Your task to perform on an android device: Go to eBay Image 0: 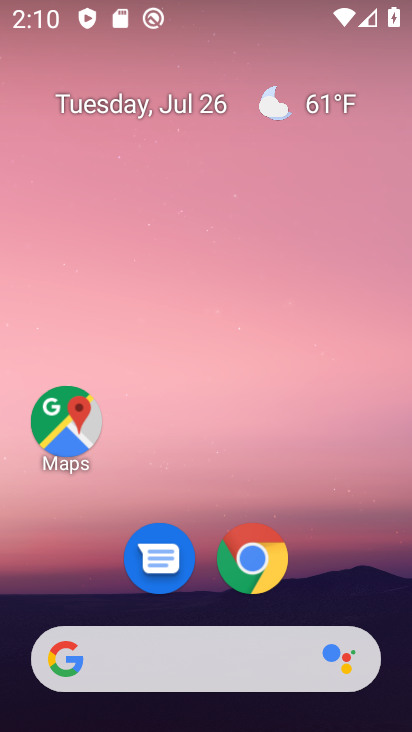
Step 0: click (253, 563)
Your task to perform on an android device: Go to eBay Image 1: 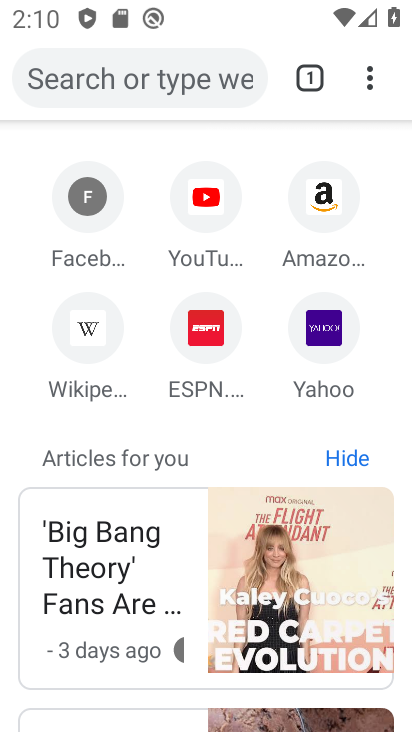
Step 1: click (158, 88)
Your task to perform on an android device: Go to eBay Image 2: 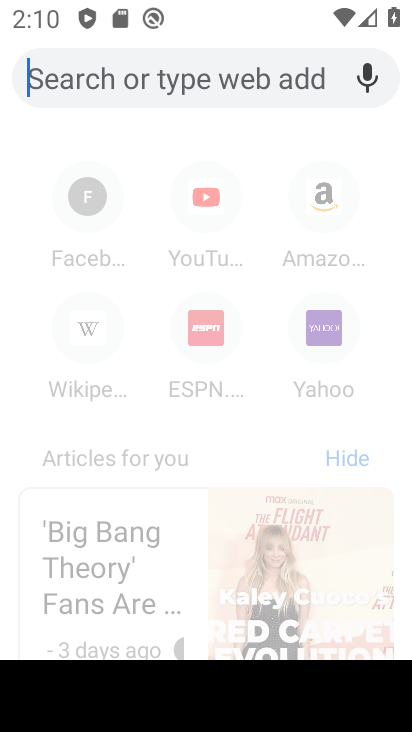
Step 2: type "ebay"
Your task to perform on an android device: Go to eBay Image 3: 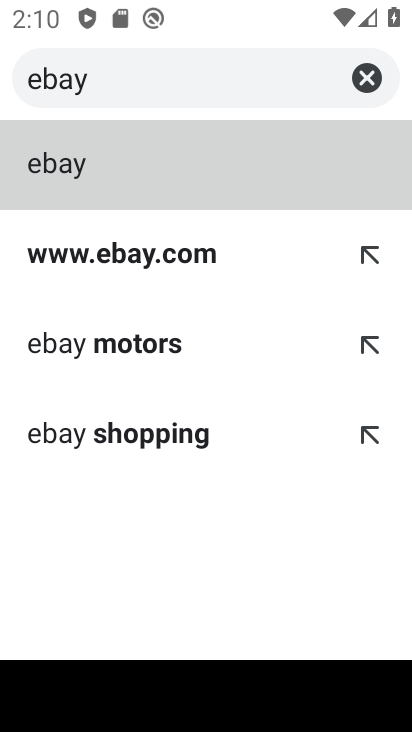
Step 3: click (151, 258)
Your task to perform on an android device: Go to eBay Image 4: 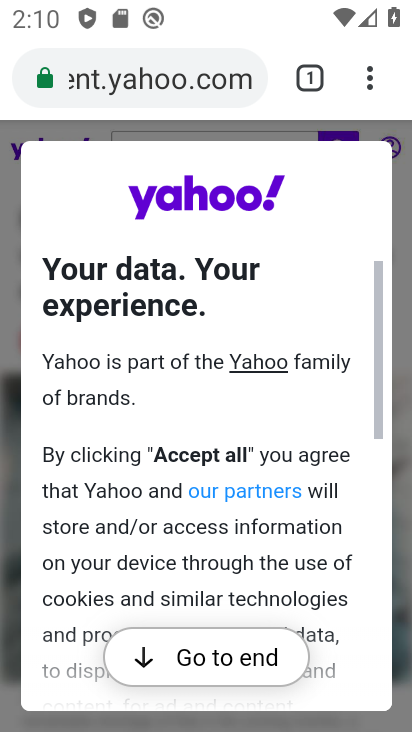
Step 4: drag from (192, 651) to (367, 80)
Your task to perform on an android device: Go to eBay Image 5: 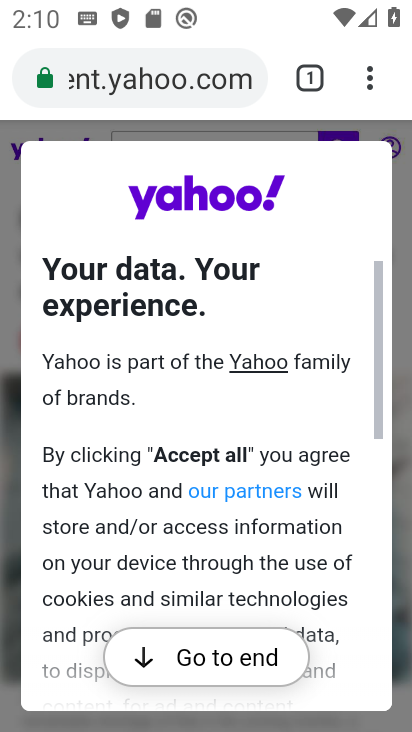
Step 5: click (178, 653)
Your task to perform on an android device: Go to eBay Image 6: 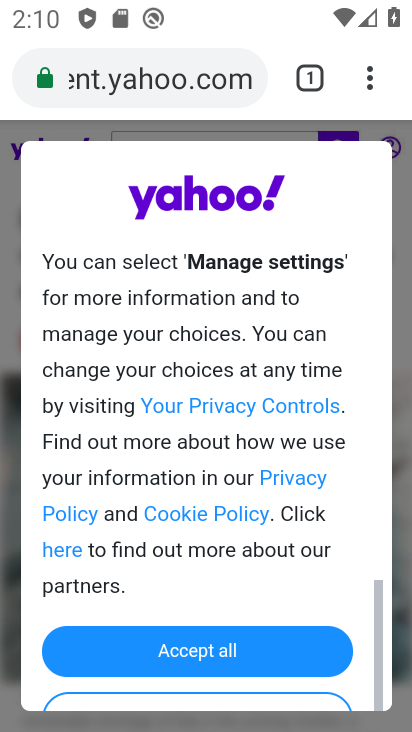
Step 6: drag from (209, 504) to (292, 181)
Your task to perform on an android device: Go to eBay Image 7: 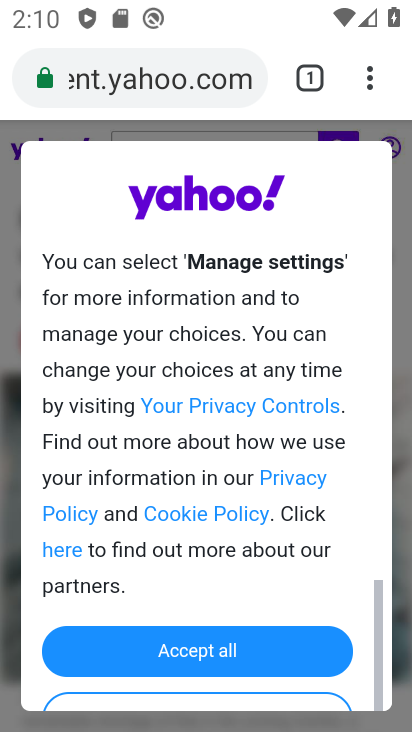
Step 7: click (189, 664)
Your task to perform on an android device: Go to eBay Image 8: 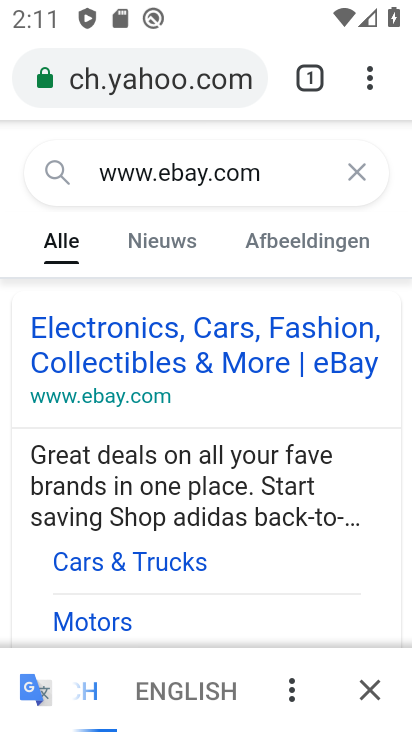
Step 8: task complete